Your task to perform on an android device: Open Yahoo.com Image 0: 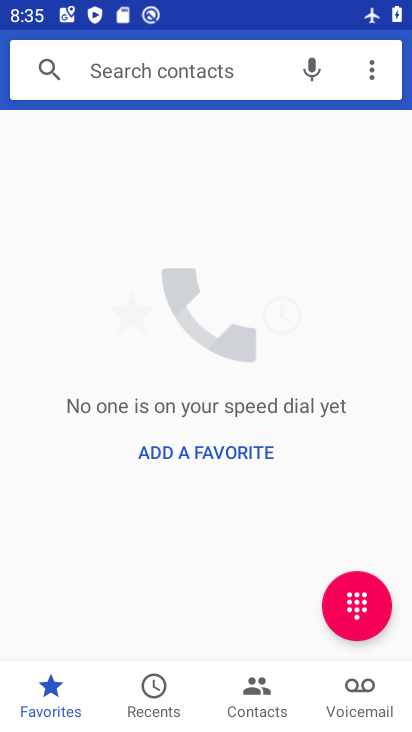
Step 0: press home button
Your task to perform on an android device: Open Yahoo.com Image 1: 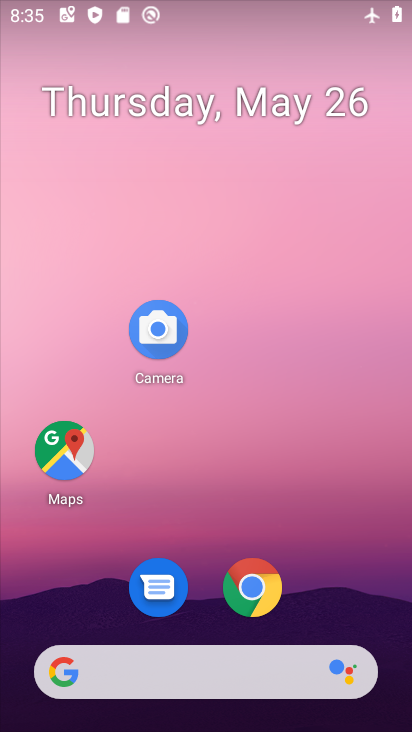
Step 1: click (256, 583)
Your task to perform on an android device: Open Yahoo.com Image 2: 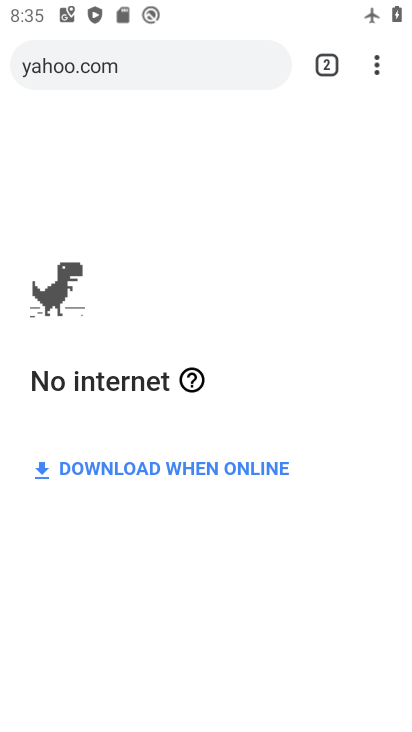
Step 2: task complete